Your task to perform on an android device: open app "Facebook Lite" Image 0: 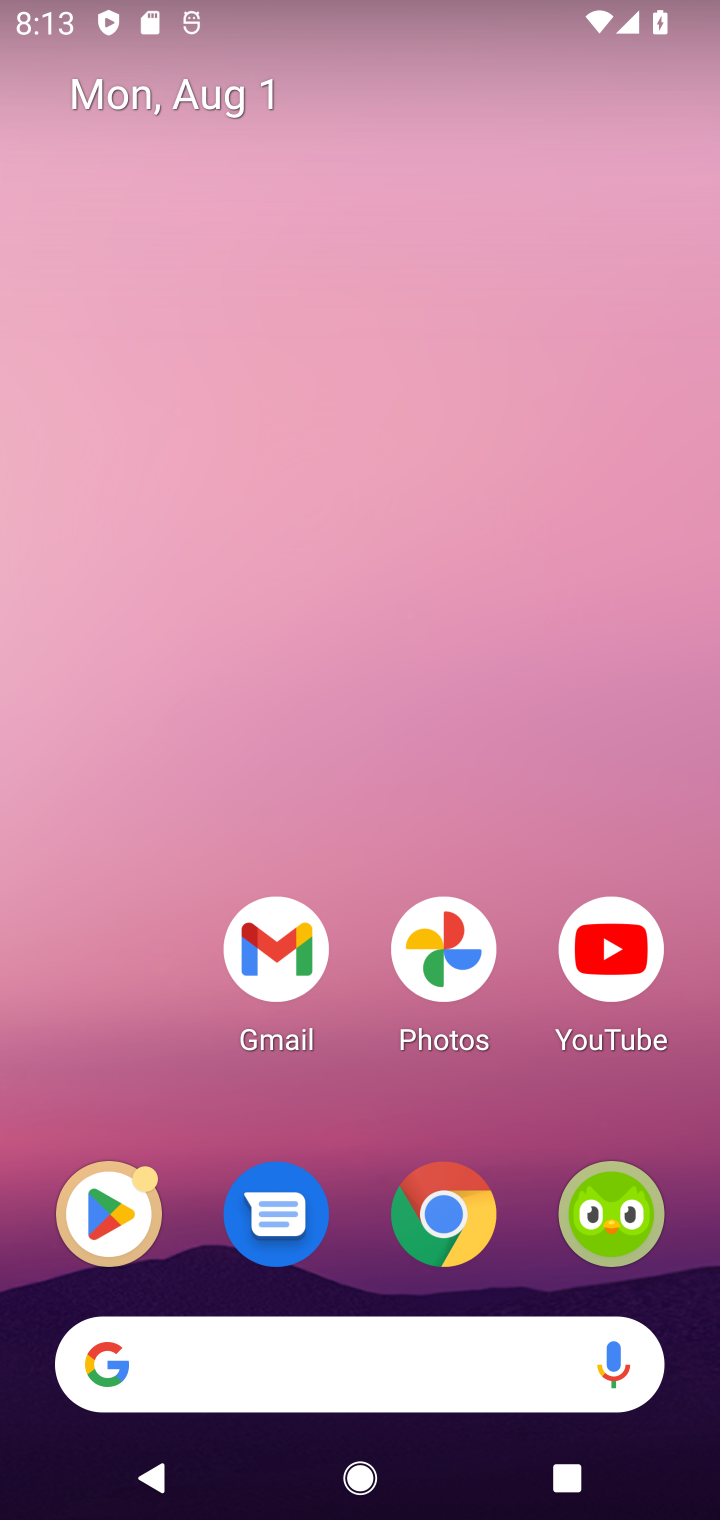
Step 0: drag from (219, 1459) to (450, 127)
Your task to perform on an android device: open app "Facebook Lite" Image 1: 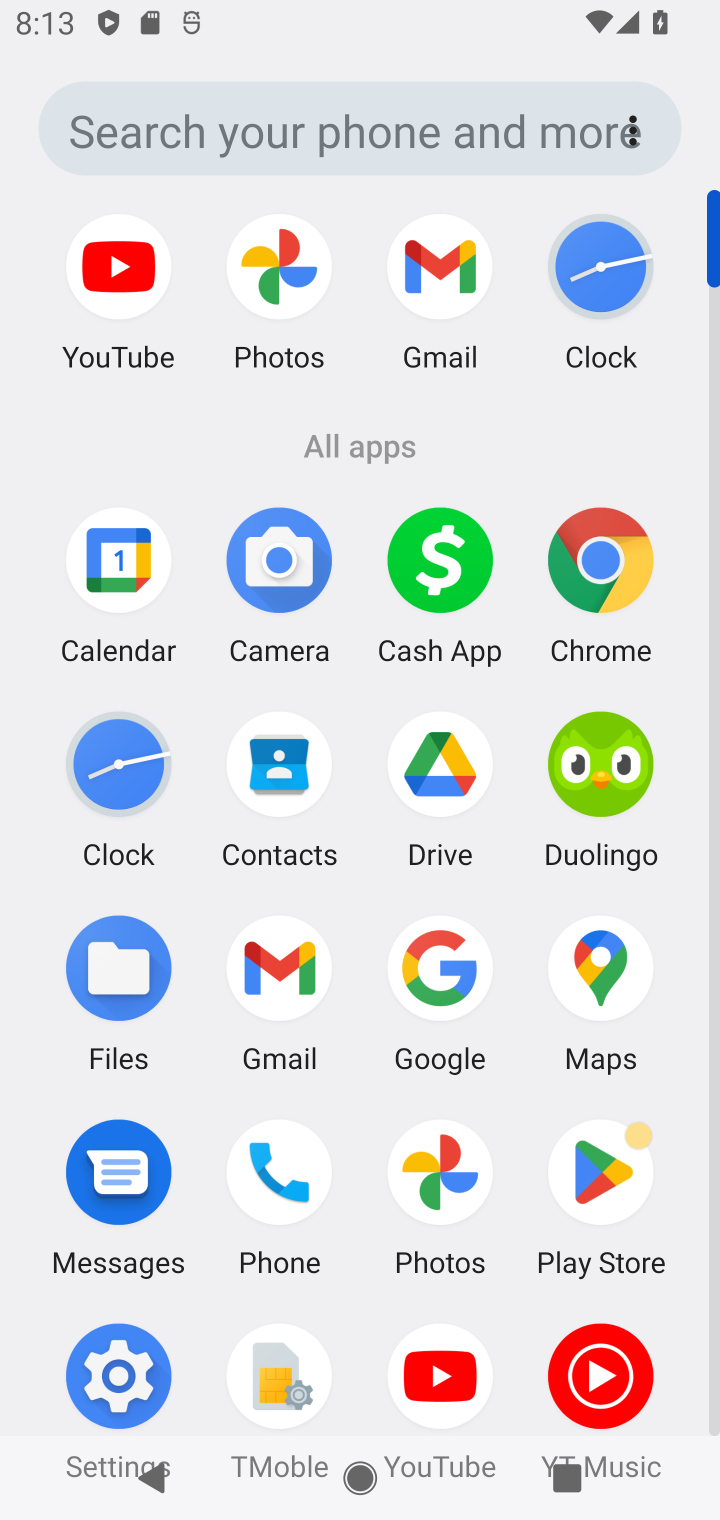
Step 1: click (595, 1170)
Your task to perform on an android device: open app "Facebook Lite" Image 2: 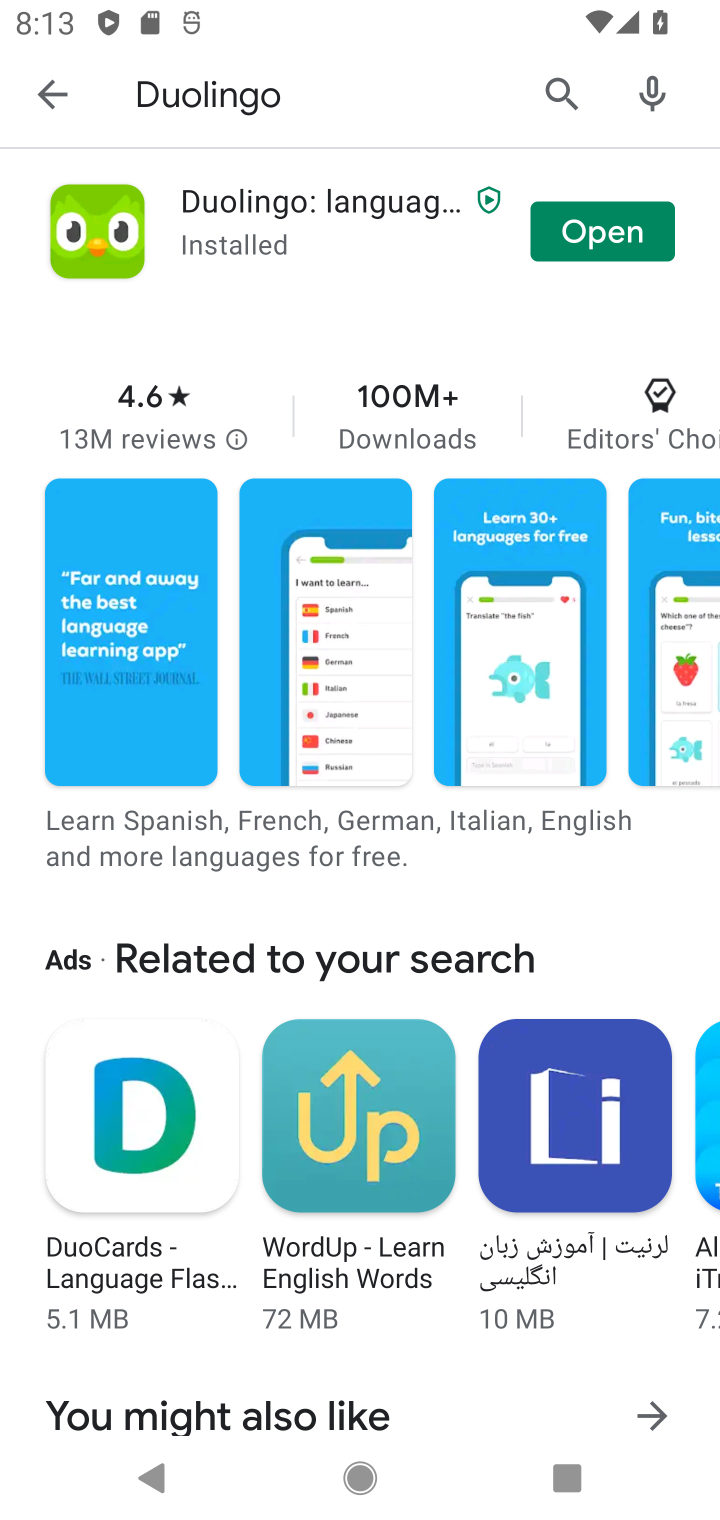
Step 2: click (561, 86)
Your task to perform on an android device: open app "Facebook Lite" Image 3: 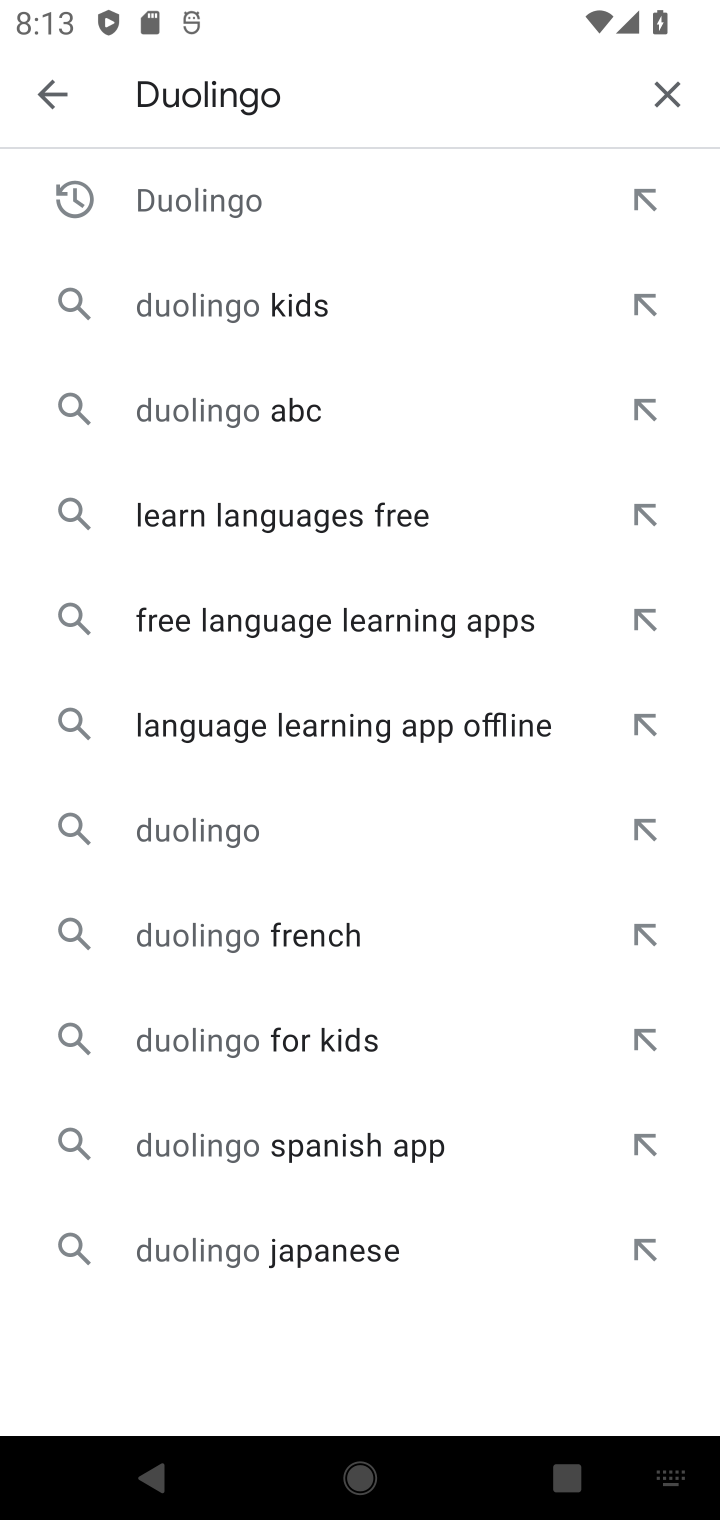
Step 3: click (666, 92)
Your task to perform on an android device: open app "Facebook Lite" Image 4: 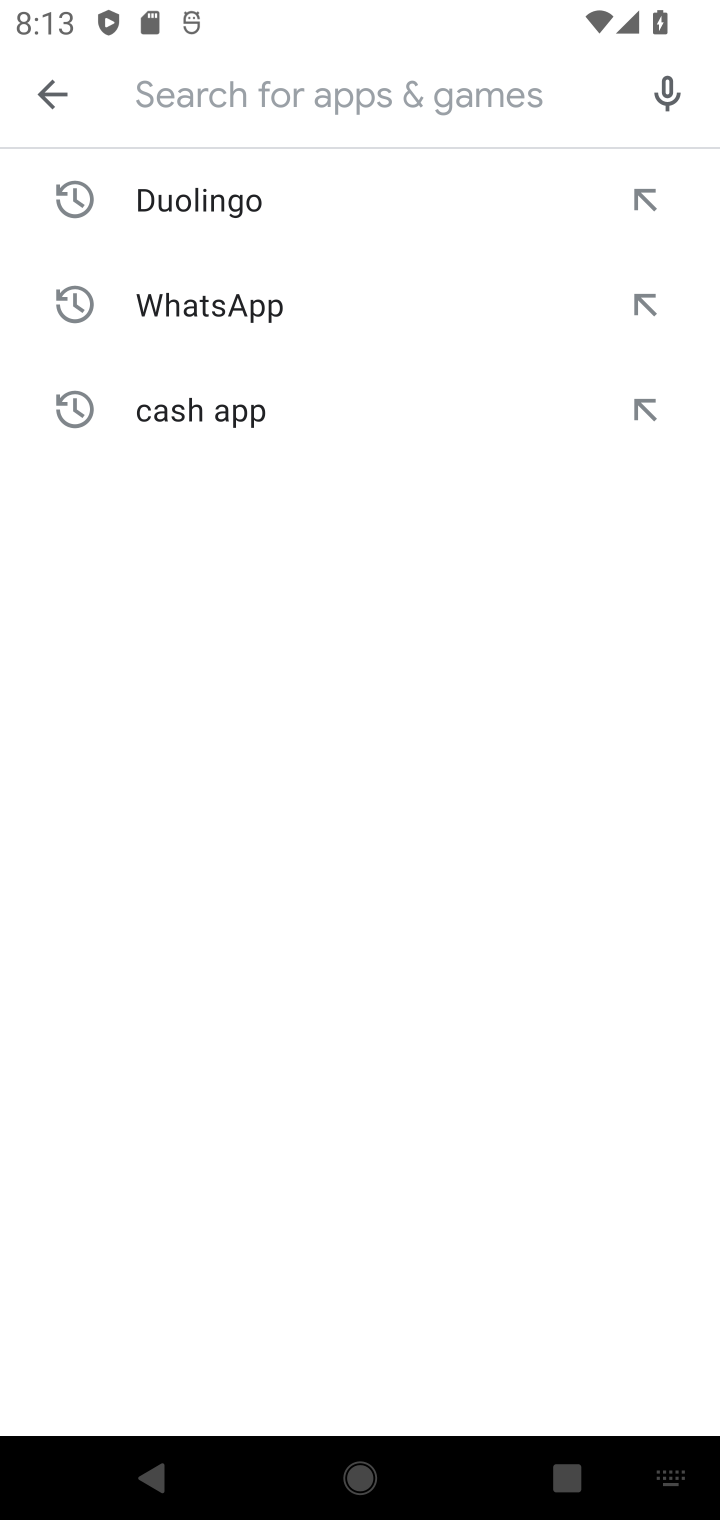
Step 4: click (474, 109)
Your task to perform on an android device: open app "Facebook Lite" Image 5: 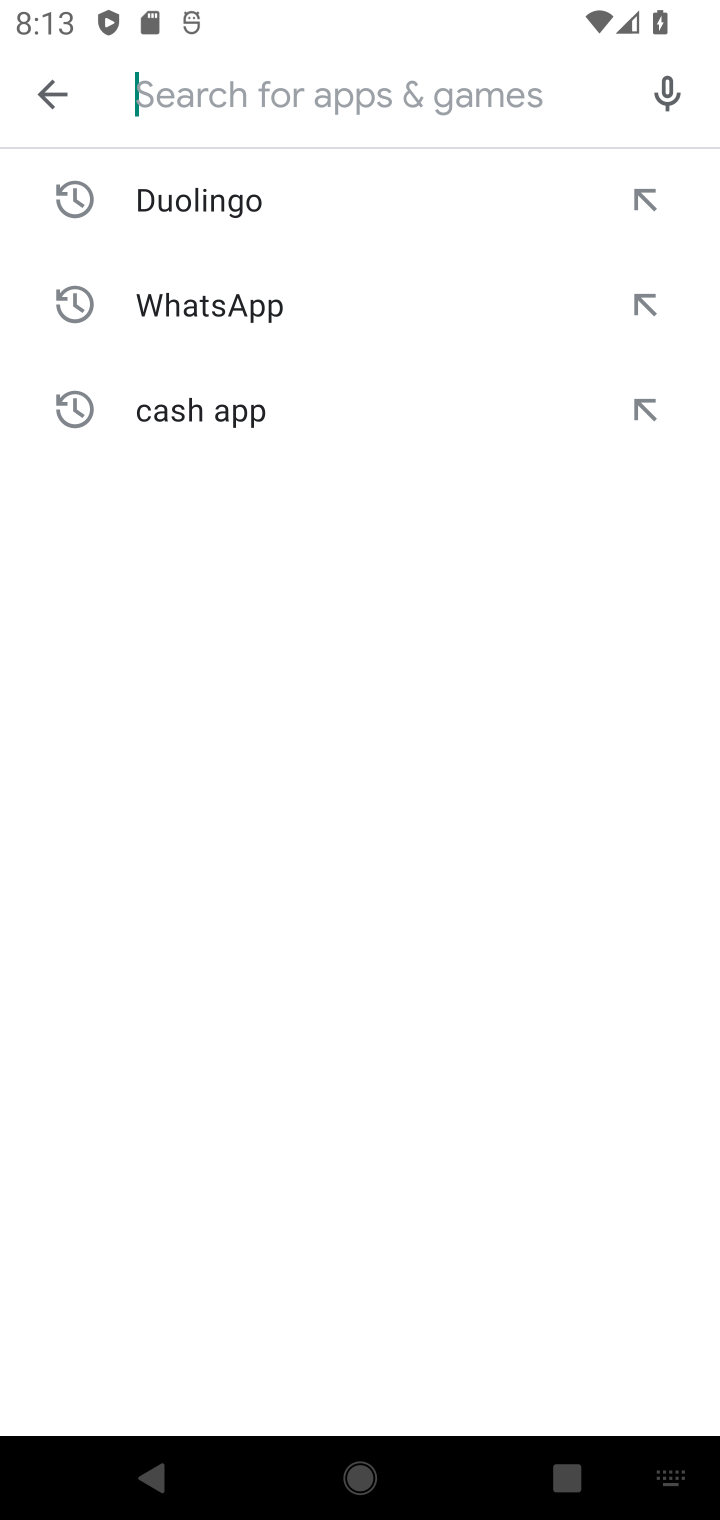
Step 5: type "Facebook"
Your task to perform on an android device: open app "Facebook Lite" Image 6: 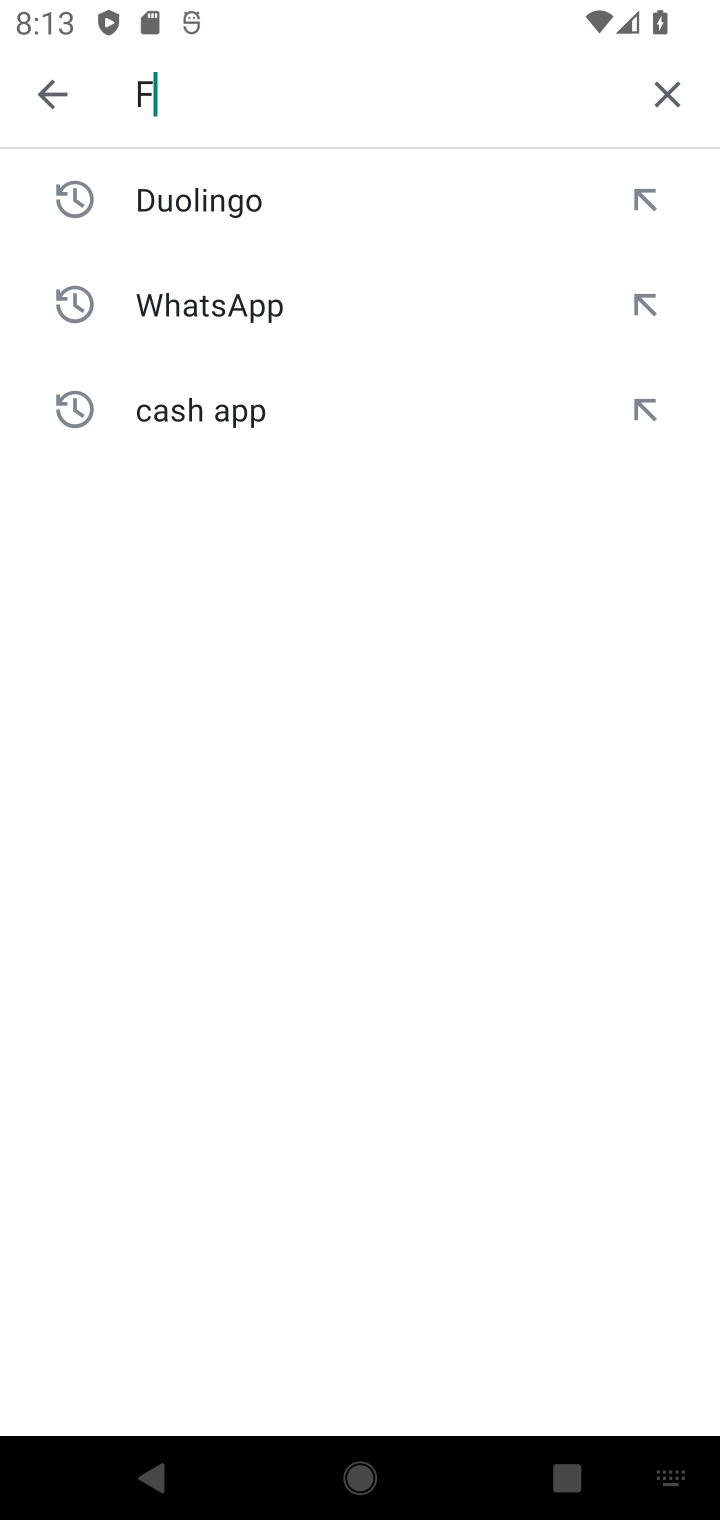
Step 6: type ""
Your task to perform on an android device: open app "Facebook Lite" Image 7: 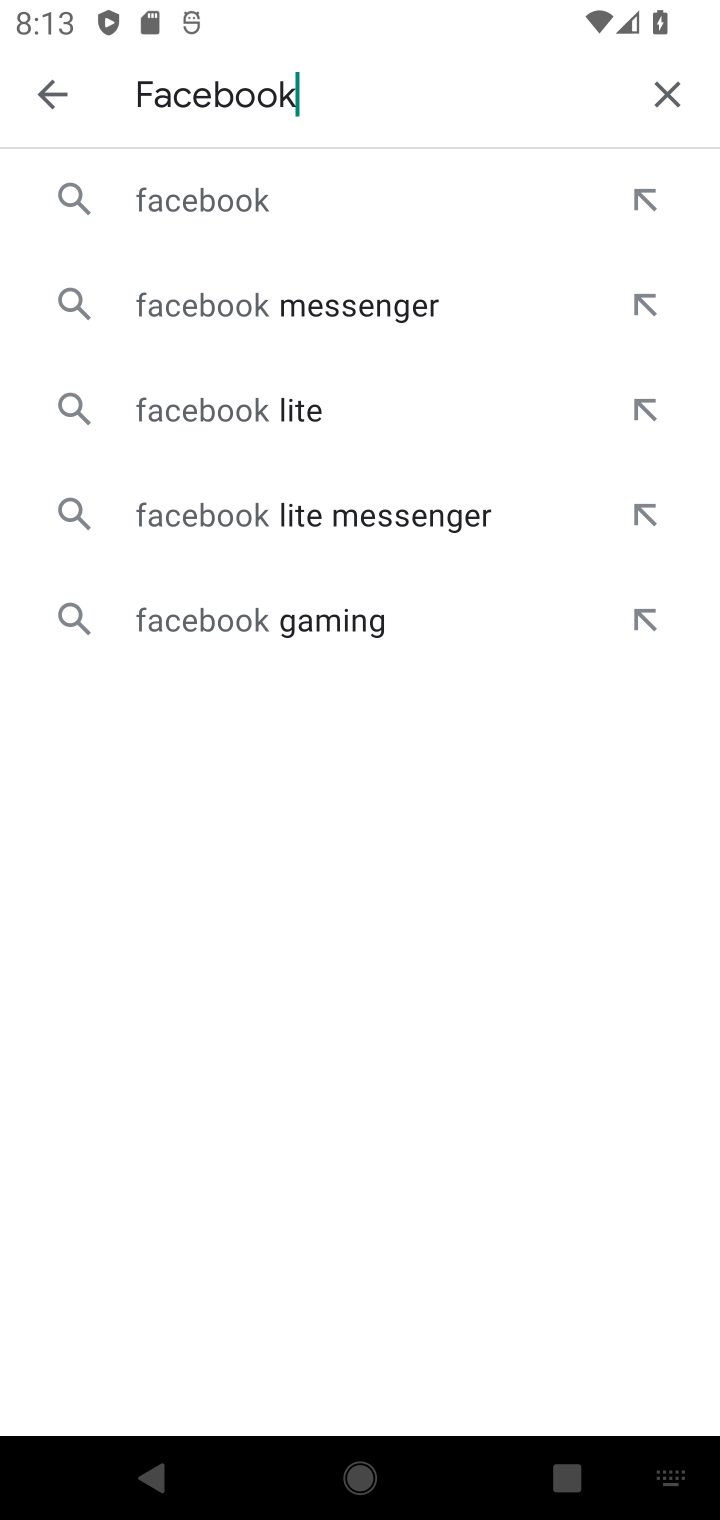
Step 7: click (301, 412)
Your task to perform on an android device: open app "Facebook Lite" Image 8: 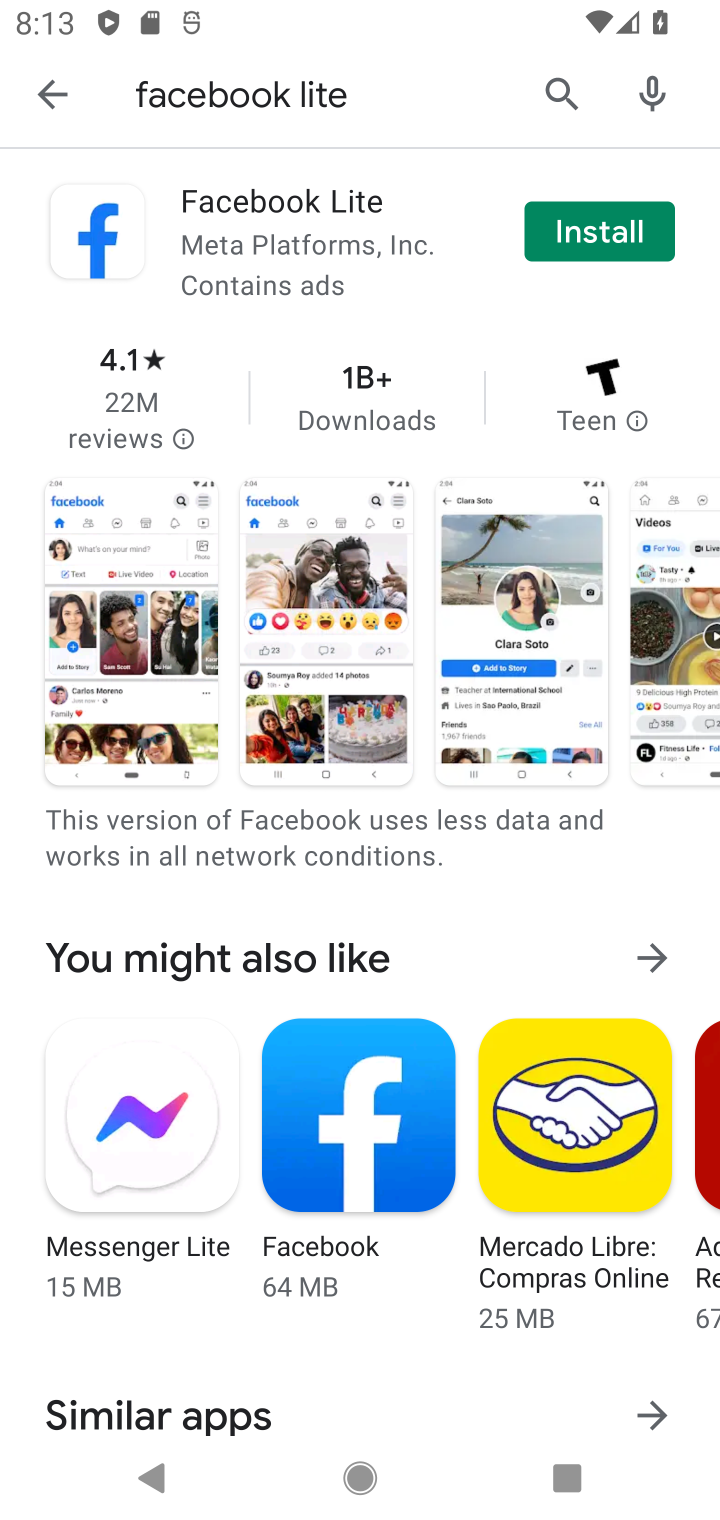
Step 8: task complete